Your task to perform on an android device: change the clock display to digital Image 0: 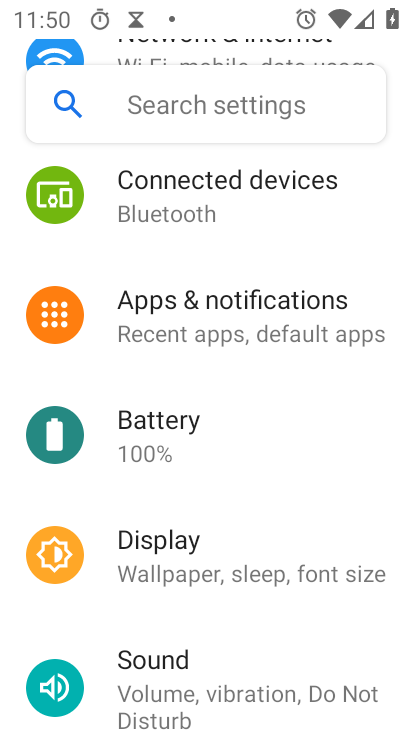
Step 0: press home button
Your task to perform on an android device: change the clock display to digital Image 1: 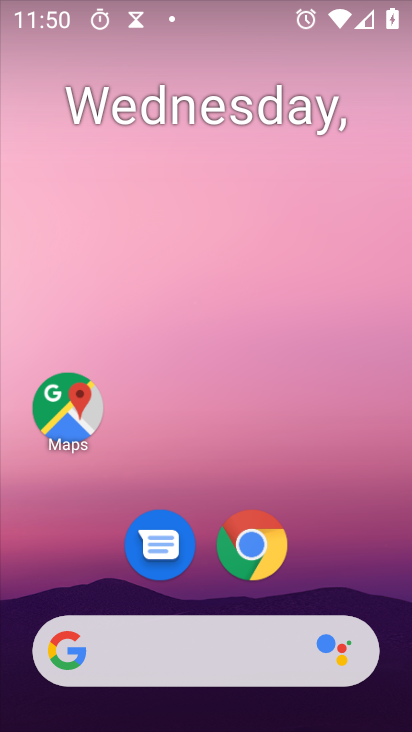
Step 1: drag from (201, 653) to (270, 88)
Your task to perform on an android device: change the clock display to digital Image 2: 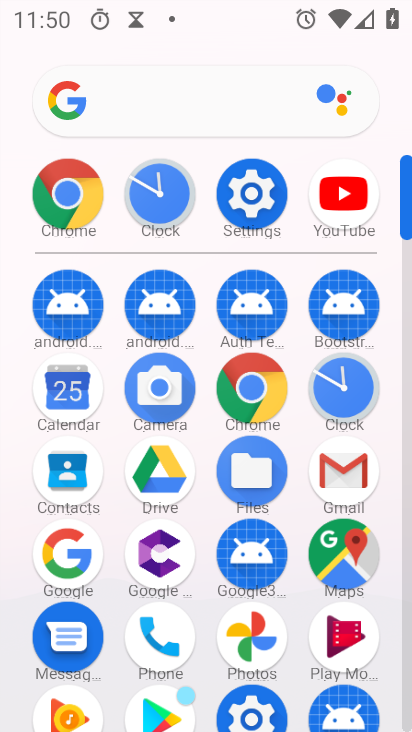
Step 2: click (332, 378)
Your task to perform on an android device: change the clock display to digital Image 3: 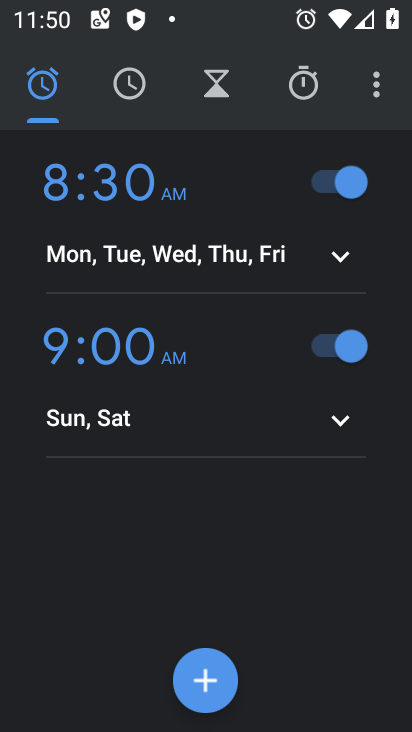
Step 3: click (376, 82)
Your task to perform on an android device: change the clock display to digital Image 4: 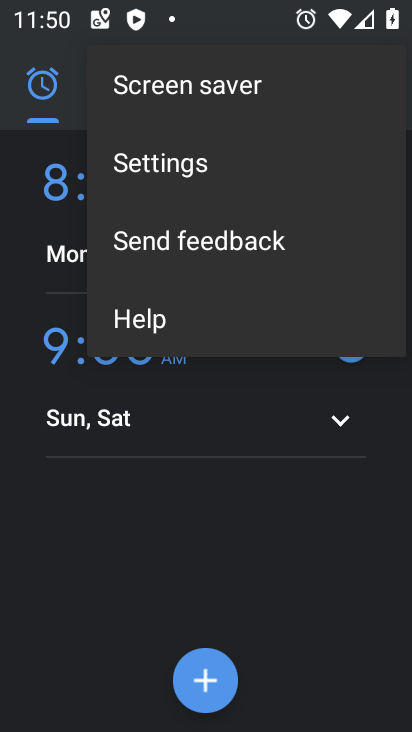
Step 4: click (182, 164)
Your task to perform on an android device: change the clock display to digital Image 5: 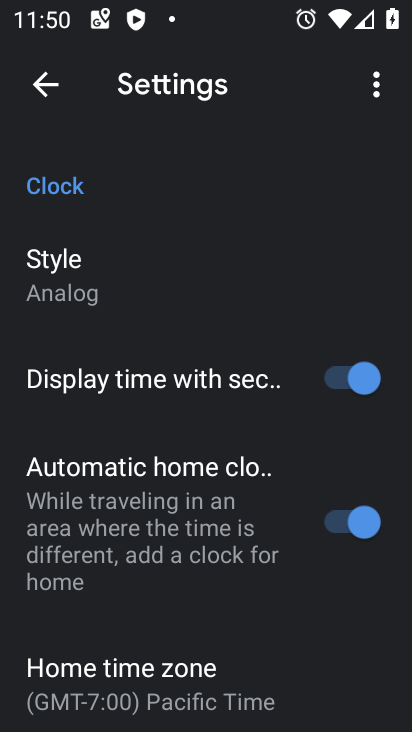
Step 5: click (56, 285)
Your task to perform on an android device: change the clock display to digital Image 6: 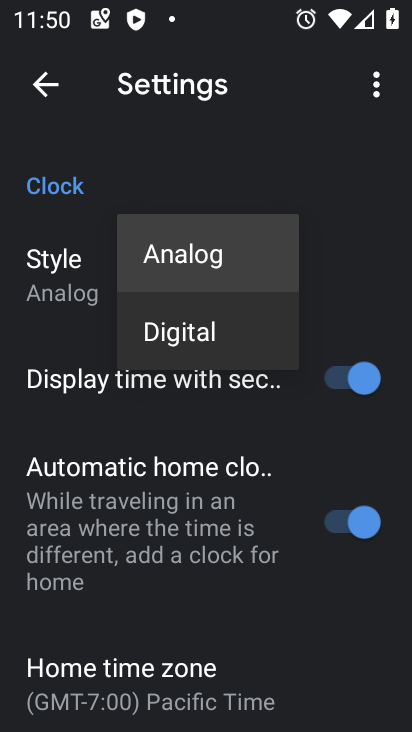
Step 6: click (176, 324)
Your task to perform on an android device: change the clock display to digital Image 7: 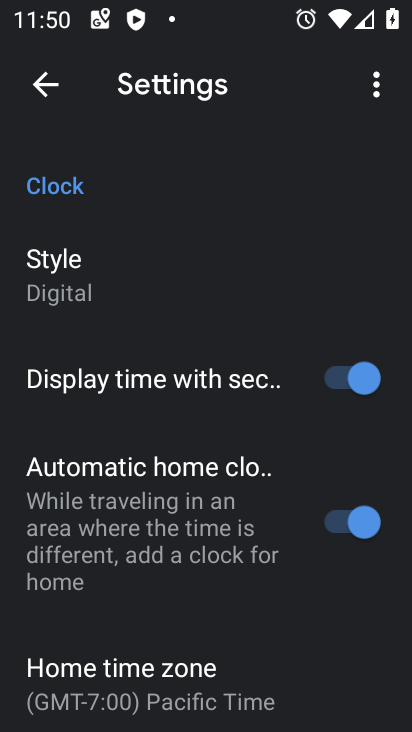
Step 7: task complete